Your task to perform on an android device: turn on sleep mode Image 0: 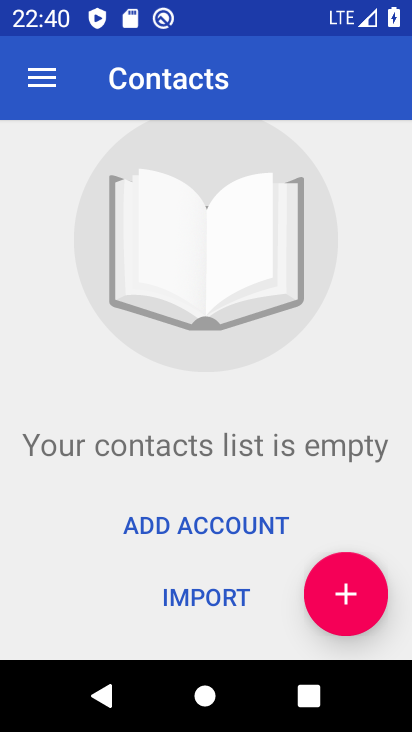
Step 0: press home button
Your task to perform on an android device: turn on sleep mode Image 1: 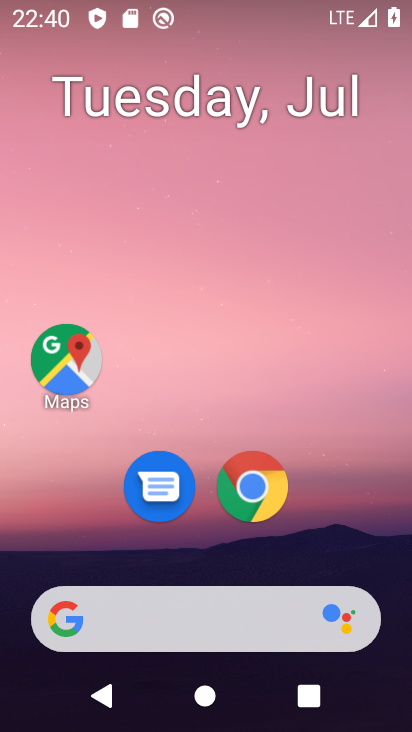
Step 1: drag from (386, 543) to (388, 208)
Your task to perform on an android device: turn on sleep mode Image 2: 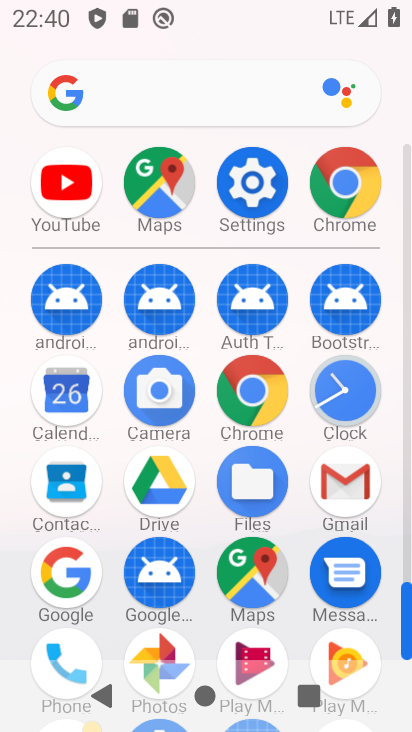
Step 2: click (257, 192)
Your task to perform on an android device: turn on sleep mode Image 3: 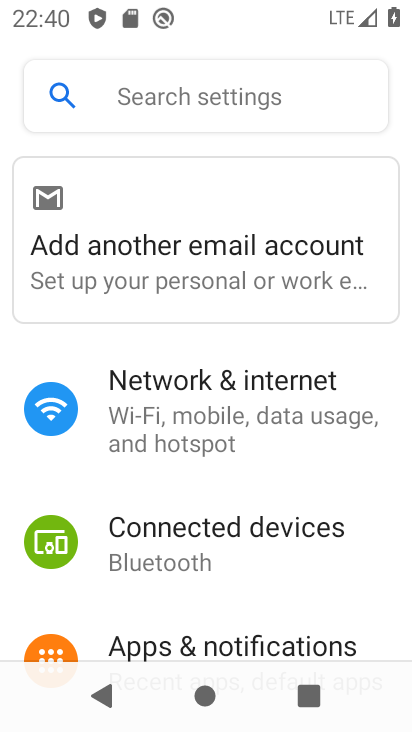
Step 3: drag from (331, 470) to (349, 367)
Your task to perform on an android device: turn on sleep mode Image 4: 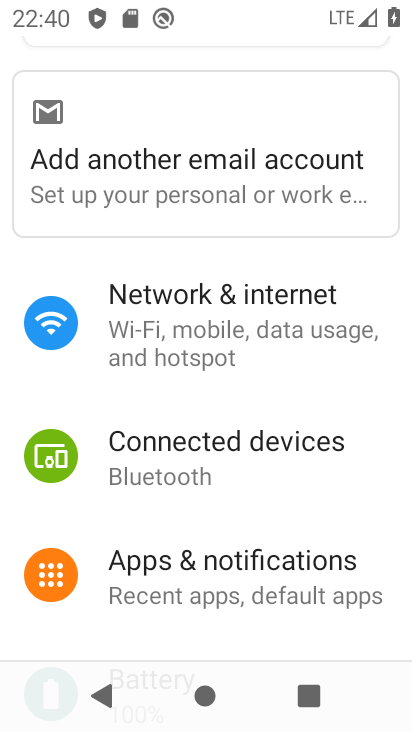
Step 4: drag from (364, 494) to (369, 359)
Your task to perform on an android device: turn on sleep mode Image 5: 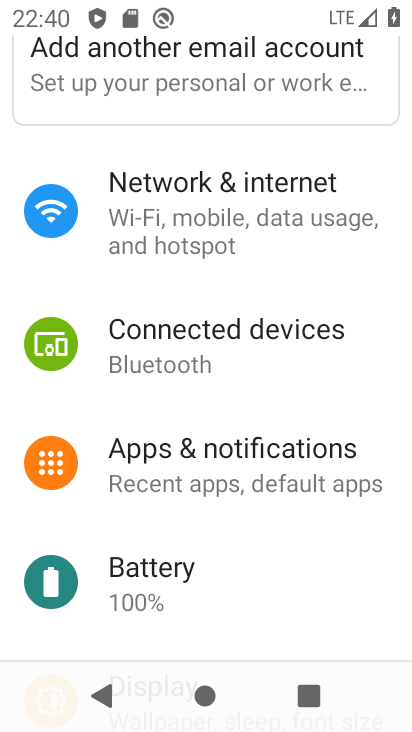
Step 5: drag from (343, 540) to (352, 434)
Your task to perform on an android device: turn on sleep mode Image 6: 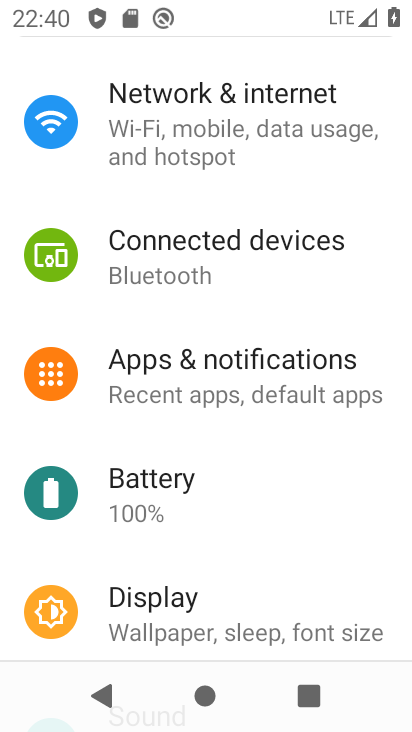
Step 6: drag from (321, 507) to (330, 379)
Your task to perform on an android device: turn on sleep mode Image 7: 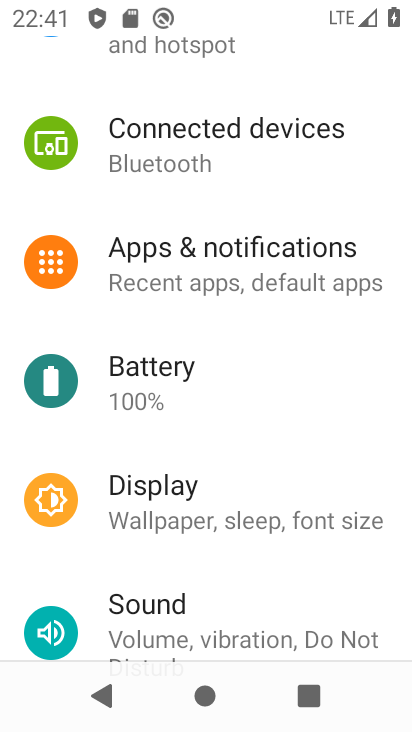
Step 7: click (315, 440)
Your task to perform on an android device: turn on sleep mode Image 8: 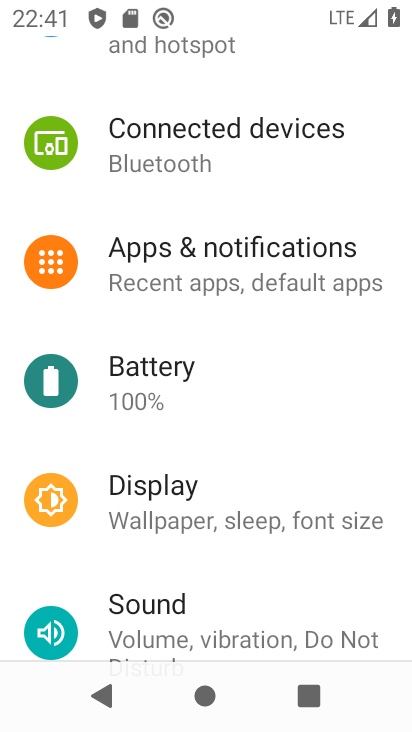
Step 8: drag from (306, 453) to (304, 321)
Your task to perform on an android device: turn on sleep mode Image 9: 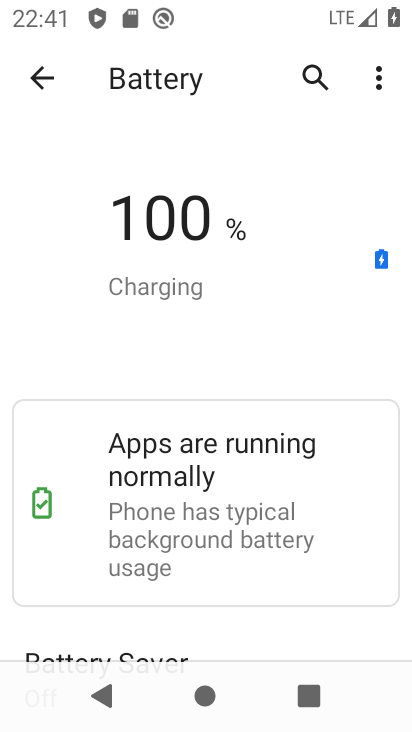
Step 9: press back button
Your task to perform on an android device: turn on sleep mode Image 10: 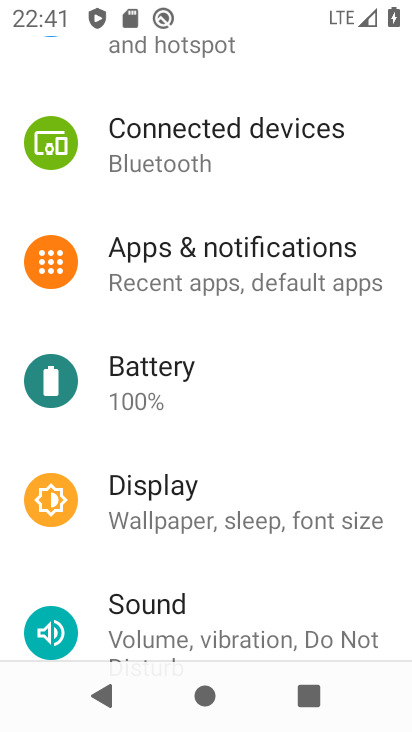
Step 10: click (239, 522)
Your task to perform on an android device: turn on sleep mode Image 11: 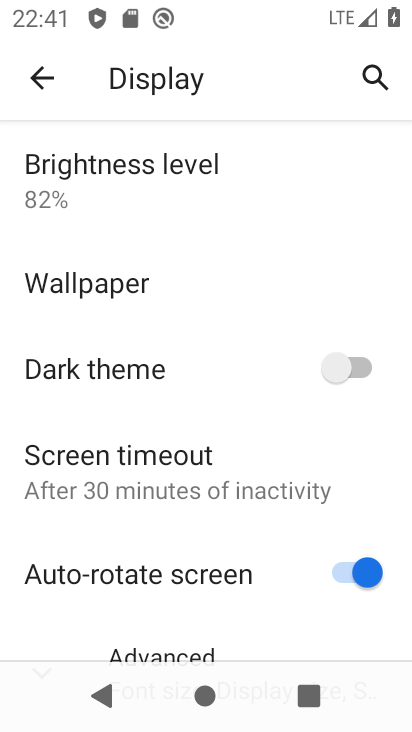
Step 11: drag from (259, 565) to (265, 400)
Your task to perform on an android device: turn on sleep mode Image 12: 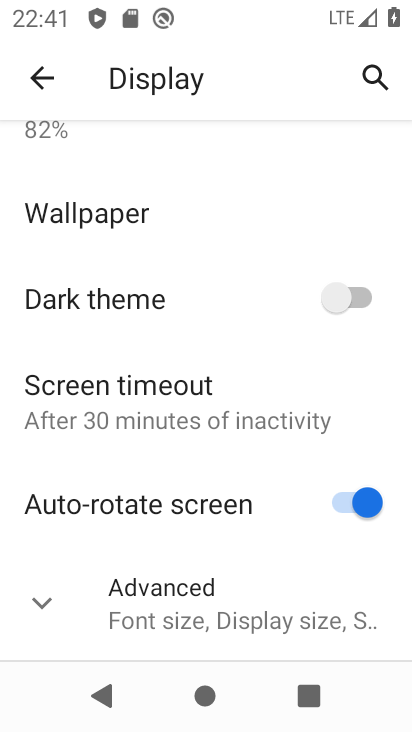
Step 12: click (254, 591)
Your task to perform on an android device: turn on sleep mode Image 13: 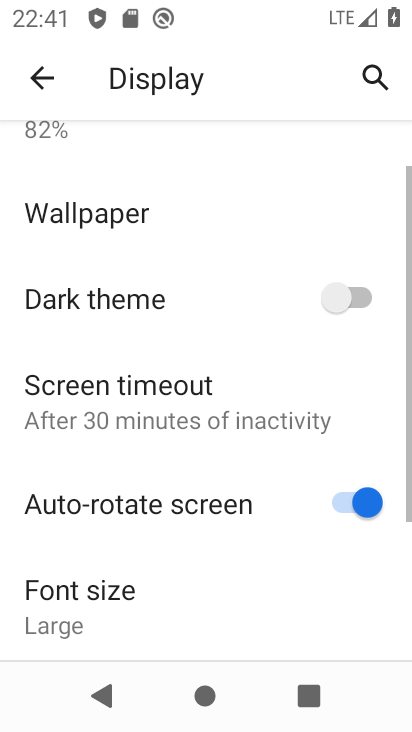
Step 13: task complete